Your task to perform on an android device: allow cookies in the chrome app Image 0: 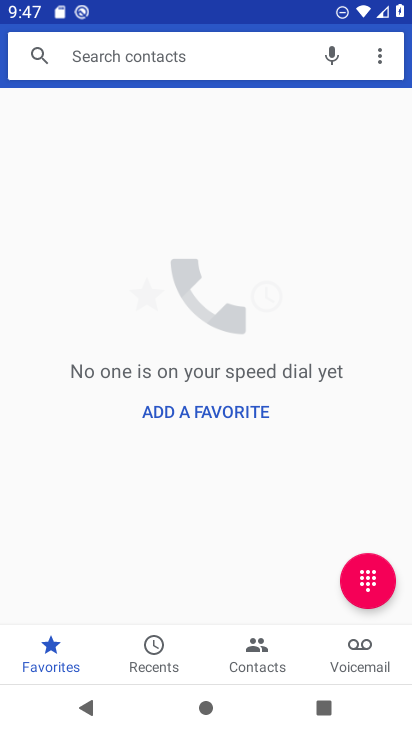
Step 0: press home button
Your task to perform on an android device: allow cookies in the chrome app Image 1: 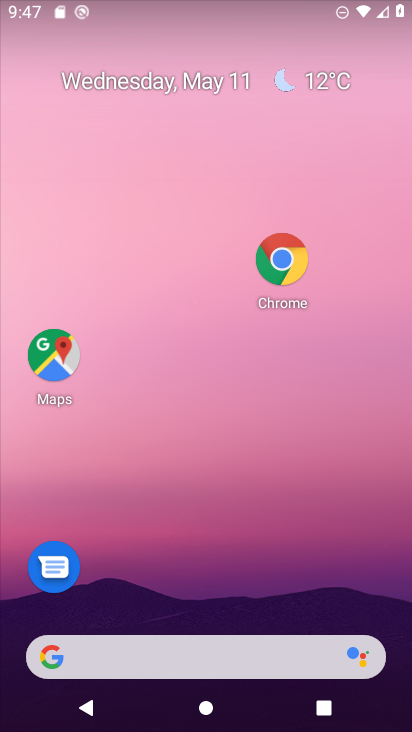
Step 1: click (284, 259)
Your task to perform on an android device: allow cookies in the chrome app Image 2: 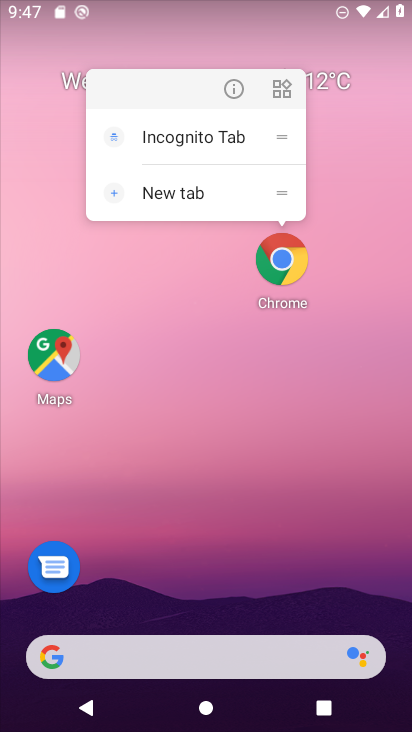
Step 2: click (280, 263)
Your task to perform on an android device: allow cookies in the chrome app Image 3: 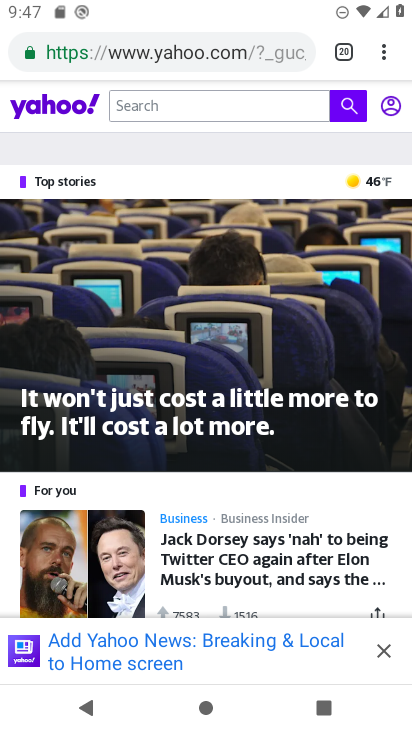
Step 3: drag from (383, 54) to (244, 600)
Your task to perform on an android device: allow cookies in the chrome app Image 4: 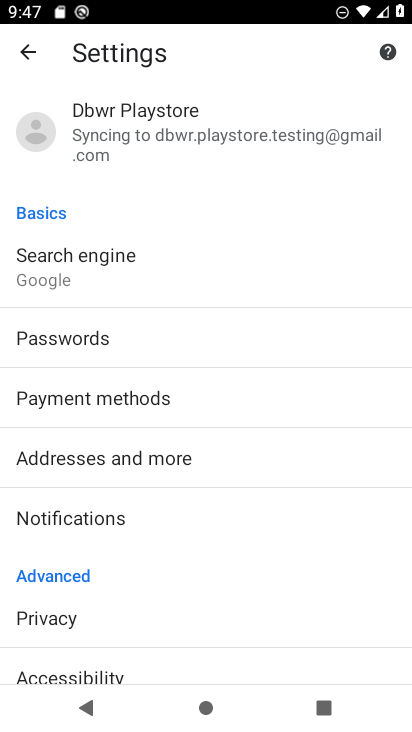
Step 4: drag from (132, 588) to (213, 368)
Your task to perform on an android device: allow cookies in the chrome app Image 5: 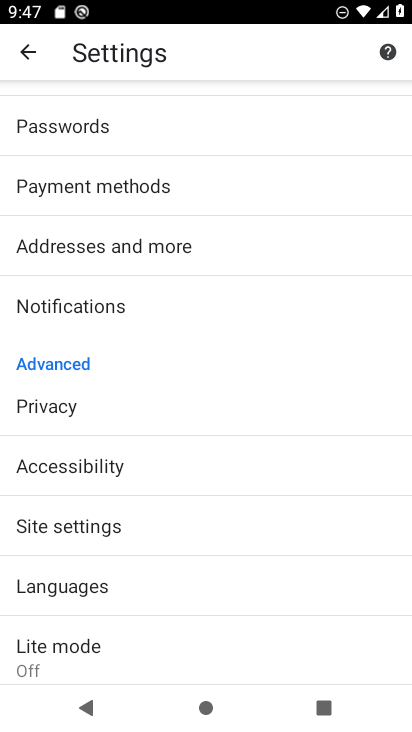
Step 5: click (68, 532)
Your task to perform on an android device: allow cookies in the chrome app Image 6: 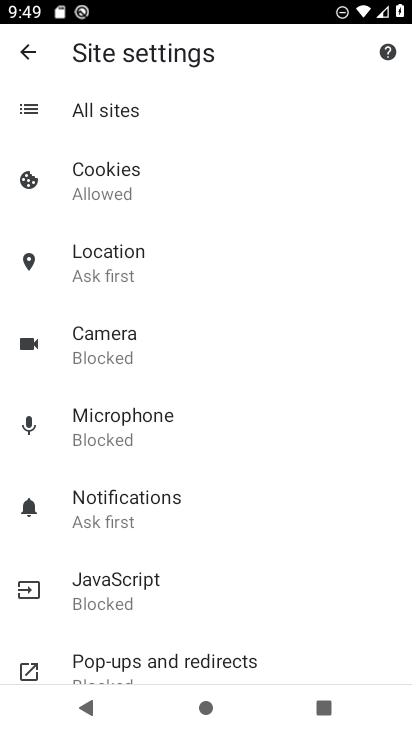
Step 6: click (122, 189)
Your task to perform on an android device: allow cookies in the chrome app Image 7: 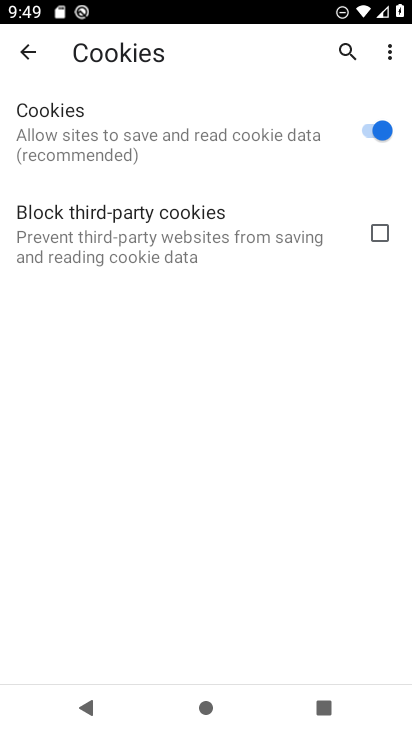
Step 7: task complete